Your task to perform on an android device: toggle airplane mode Image 0: 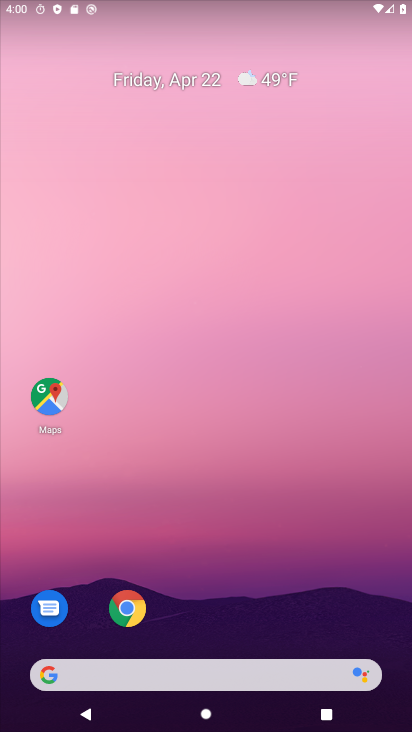
Step 0: drag from (270, 607) to (309, 55)
Your task to perform on an android device: toggle airplane mode Image 1: 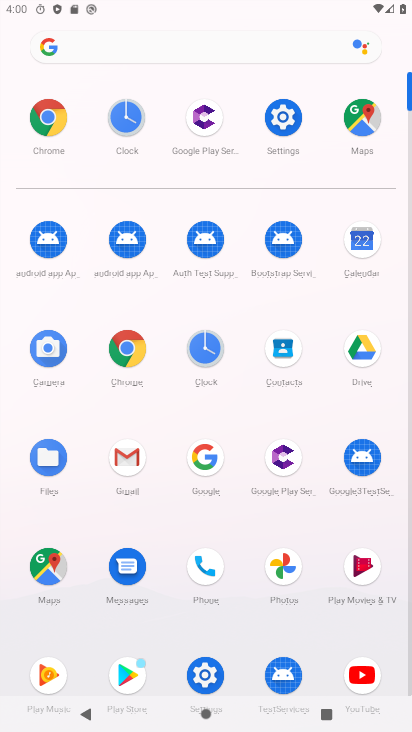
Step 1: click (278, 109)
Your task to perform on an android device: toggle airplane mode Image 2: 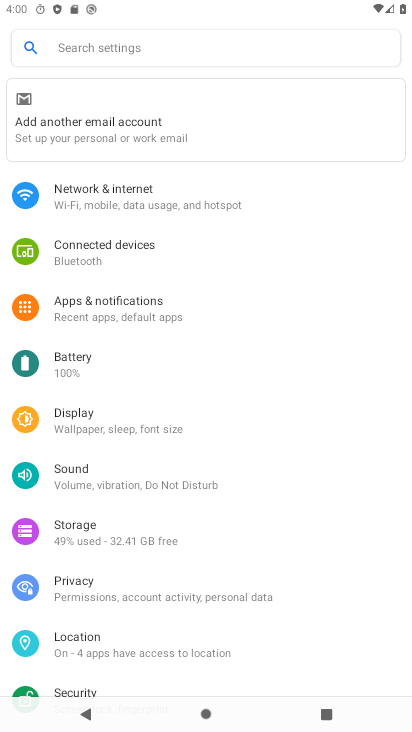
Step 2: click (163, 201)
Your task to perform on an android device: toggle airplane mode Image 3: 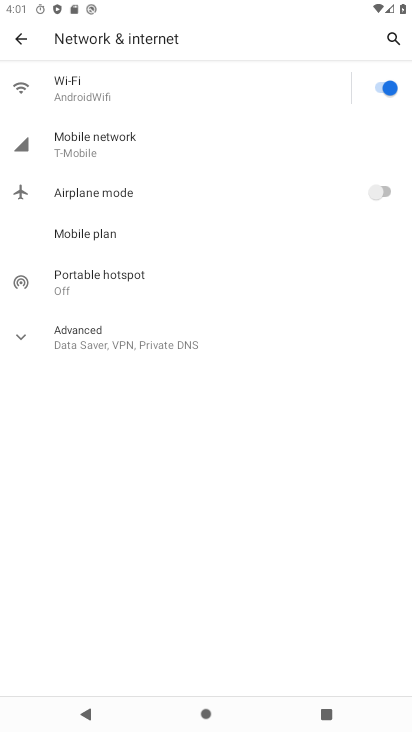
Step 3: click (382, 190)
Your task to perform on an android device: toggle airplane mode Image 4: 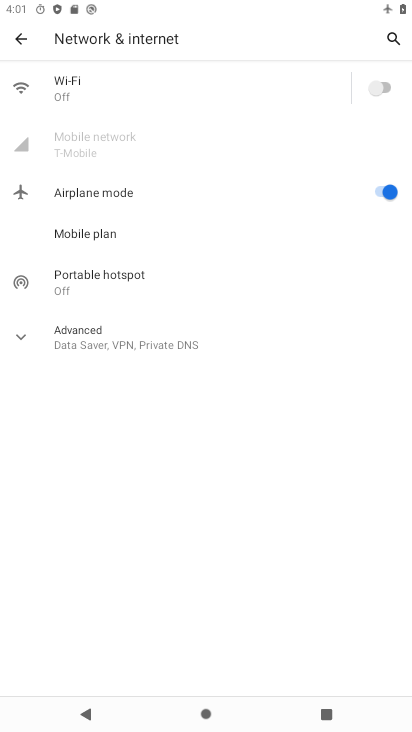
Step 4: task complete